Your task to perform on an android device: Go to notification settings Image 0: 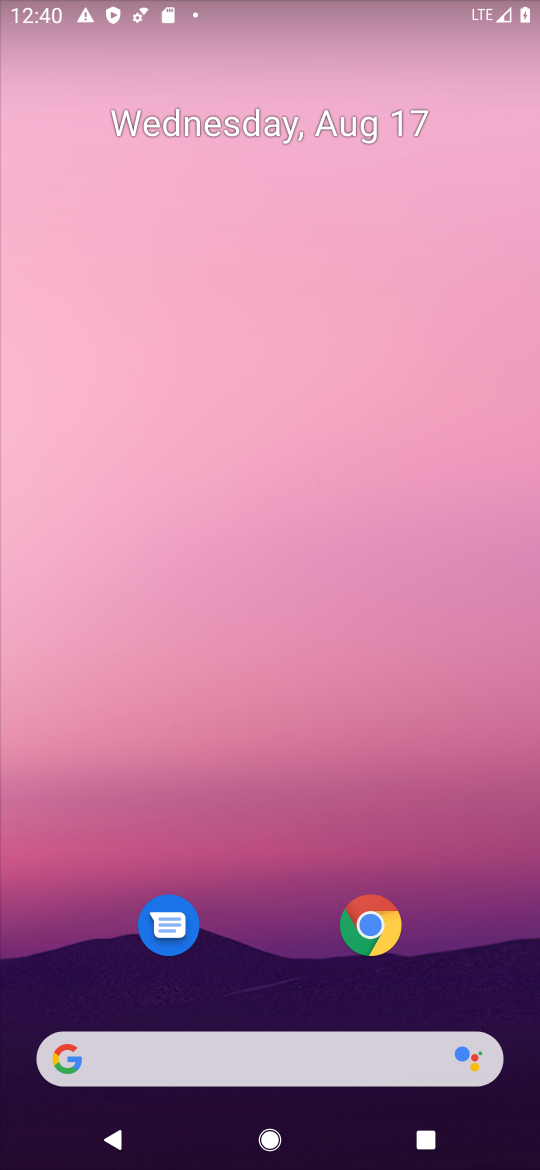
Step 0: drag from (232, 1004) to (127, 264)
Your task to perform on an android device: Go to notification settings Image 1: 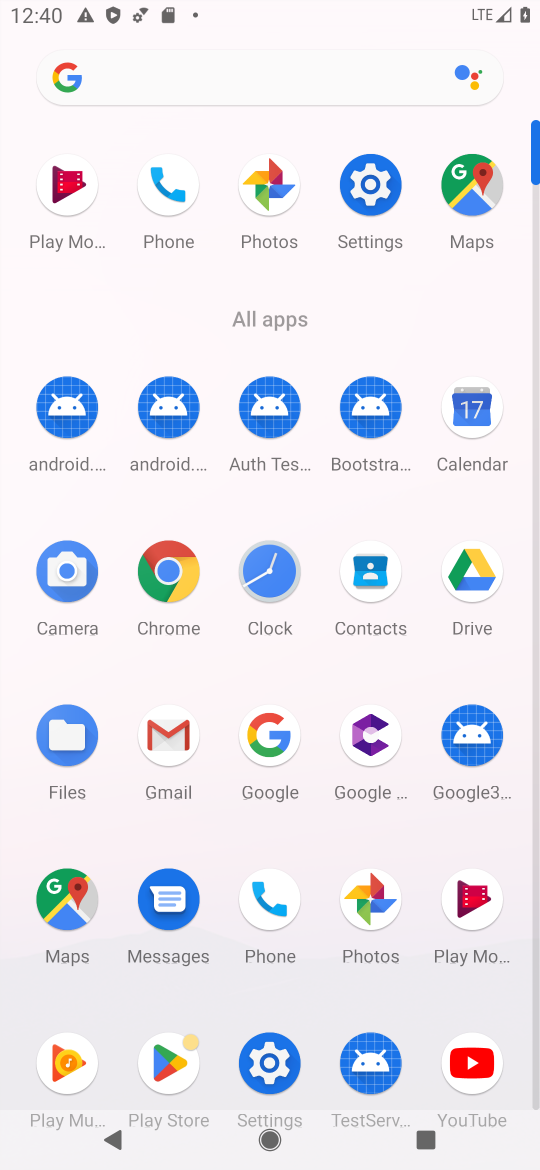
Step 1: click (278, 1068)
Your task to perform on an android device: Go to notification settings Image 2: 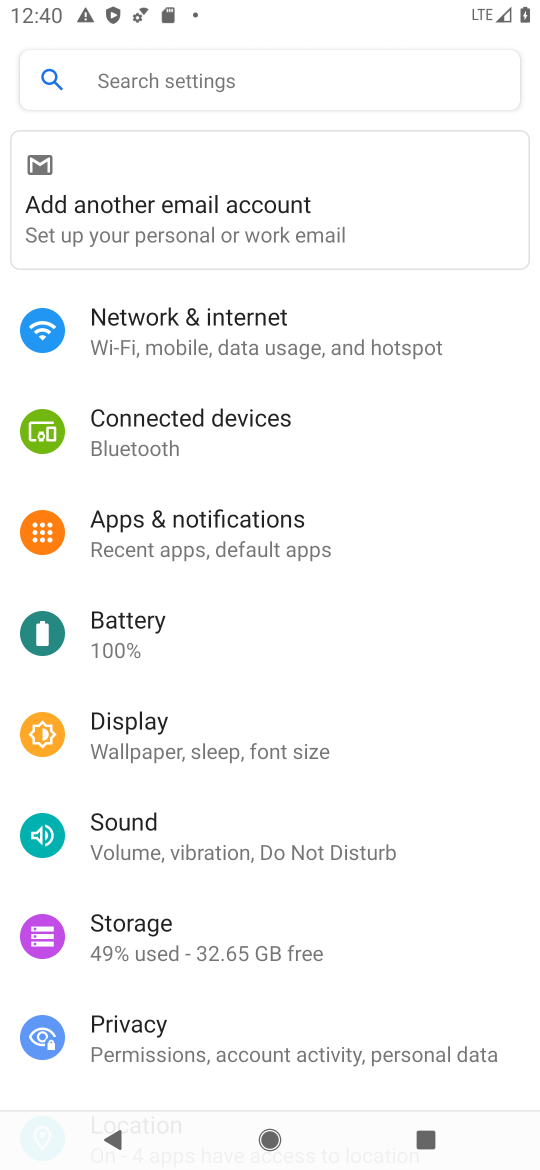
Step 2: click (187, 524)
Your task to perform on an android device: Go to notification settings Image 3: 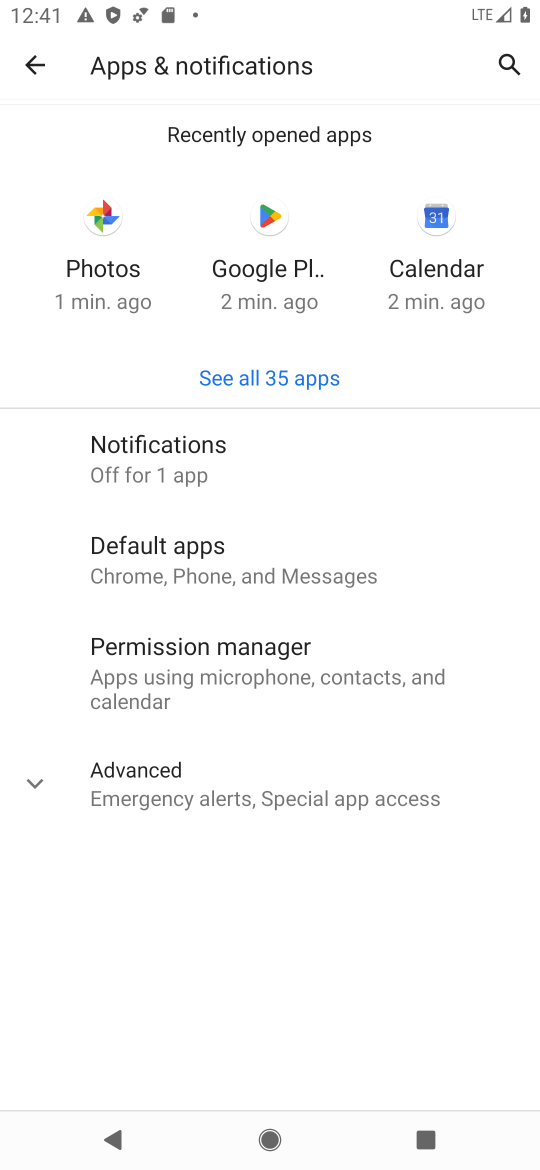
Step 3: click (103, 472)
Your task to perform on an android device: Go to notification settings Image 4: 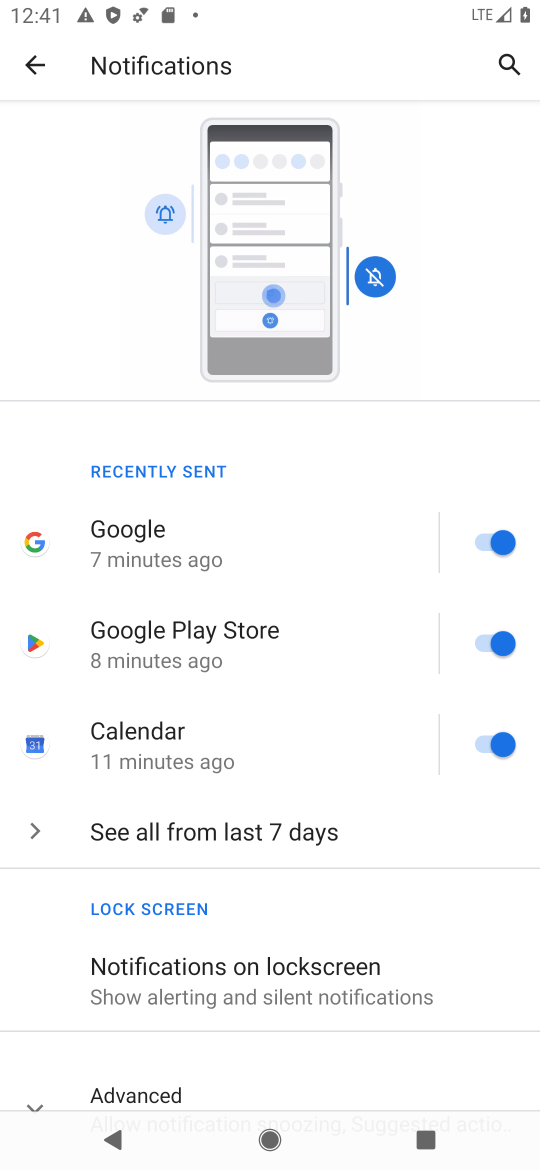
Step 4: task complete